Your task to perform on an android device: Go to Amazon Image 0: 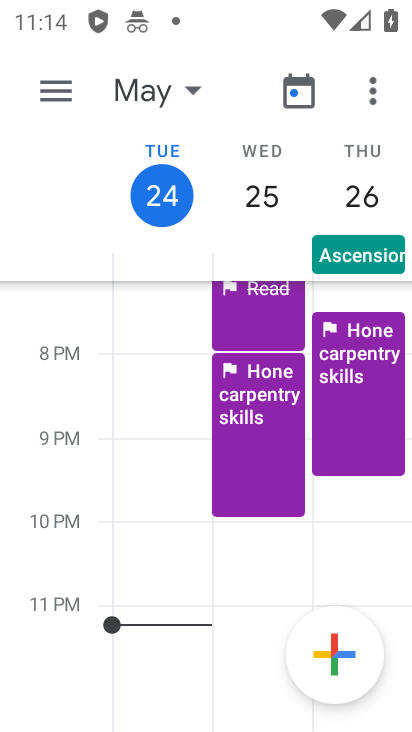
Step 0: press home button
Your task to perform on an android device: Go to Amazon Image 1: 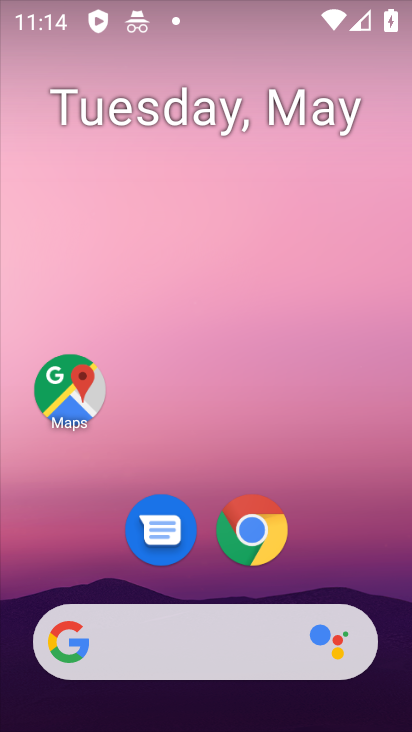
Step 1: drag from (326, 519) to (288, 117)
Your task to perform on an android device: Go to Amazon Image 2: 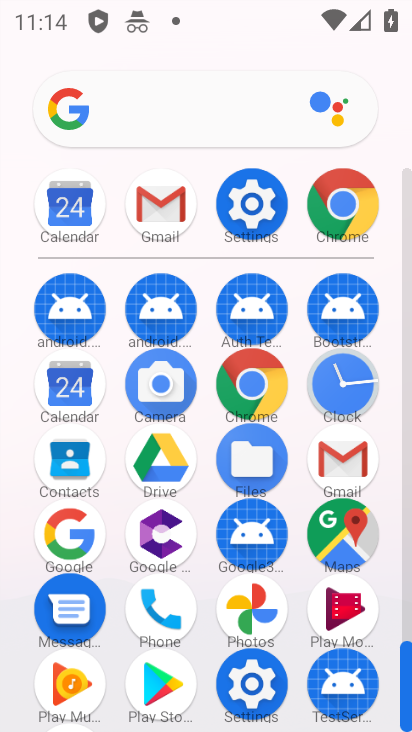
Step 2: click (256, 385)
Your task to perform on an android device: Go to Amazon Image 3: 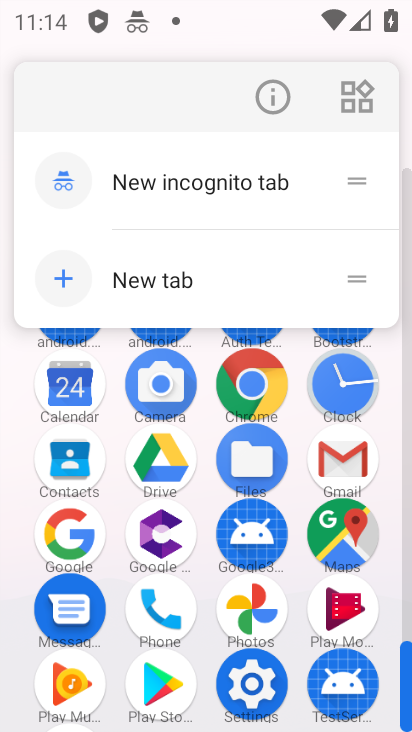
Step 3: click (256, 378)
Your task to perform on an android device: Go to Amazon Image 4: 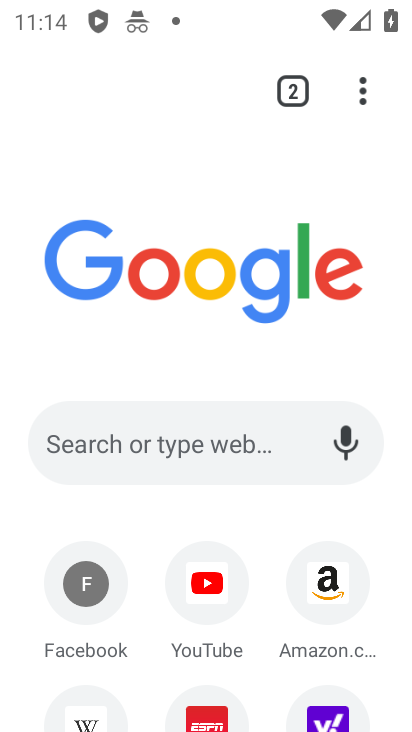
Step 4: click (353, 562)
Your task to perform on an android device: Go to Amazon Image 5: 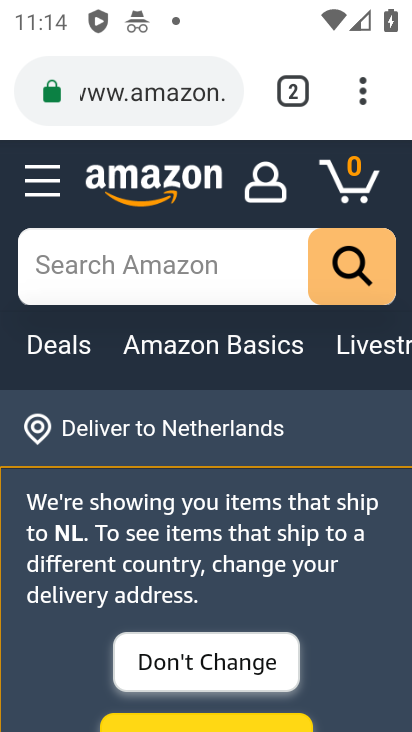
Step 5: task complete